Your task to perform on an android device: add a contact Image 0: 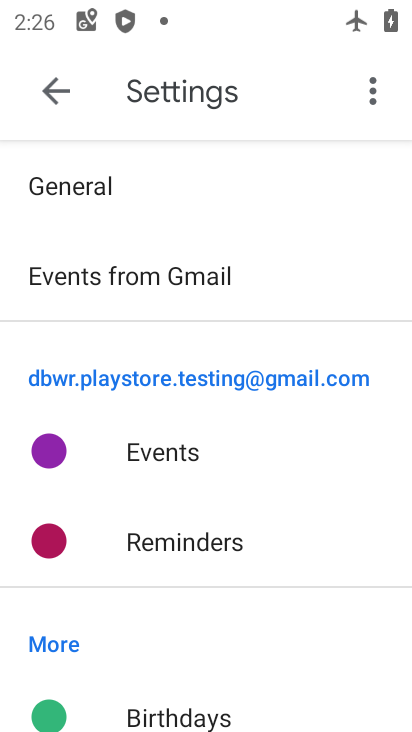
Step 0: press home button
Your task to perform on an android device: add a contact Image 1: 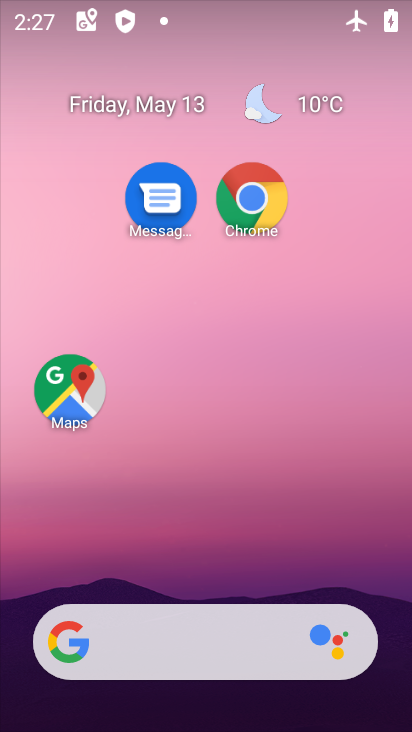
Step 1: drag from (232, 575) to (197, 31)
Your task to perform on an android device: add a contact Image 2: 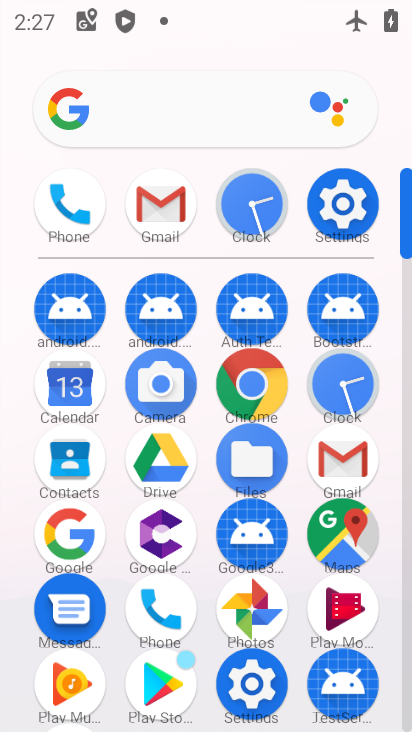
Step 2: click (150, 610)
Your task to perform on an android device: add a contact Image 3: 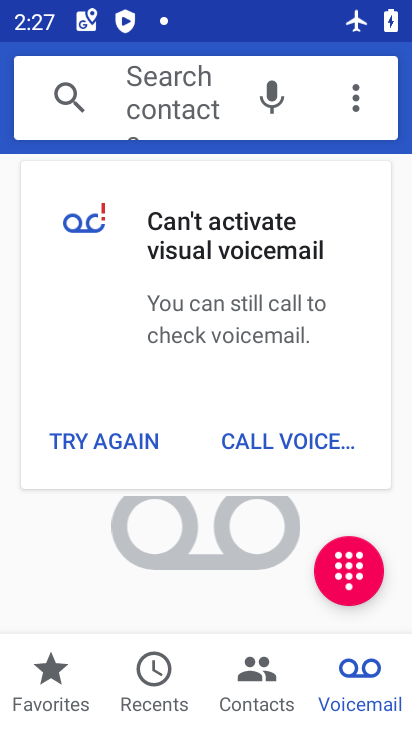
Step 3: click (269, 713)
Your task to perform on an android device: add a contact Image 4: 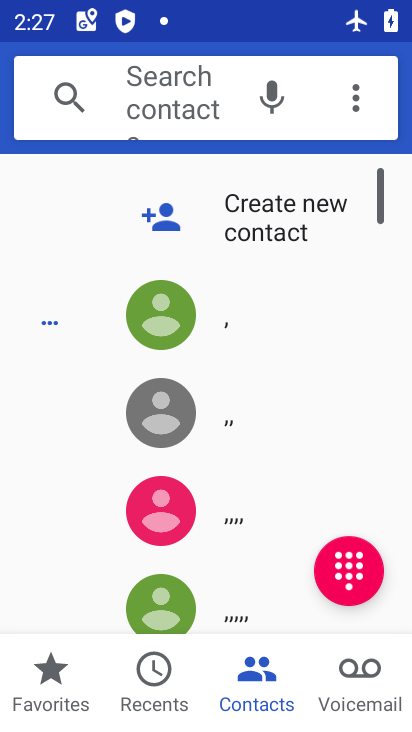
Step 4: click (206, 218)
Your task to perform on an android device: add a contact Image 5: 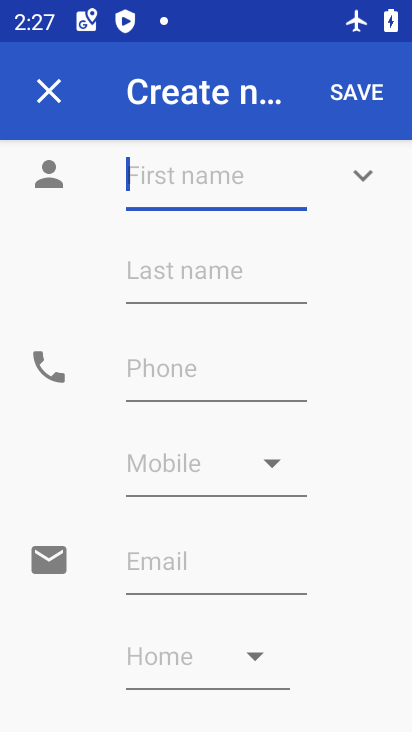
Step 5: type "hh"
Your task to perform on an android device: add a contact Image 6: 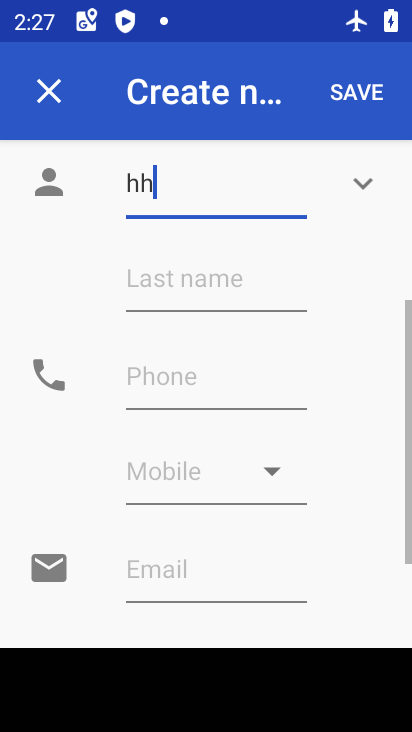
Step 6: type ""
Your task to perform on an android device: add a contact Image 7: 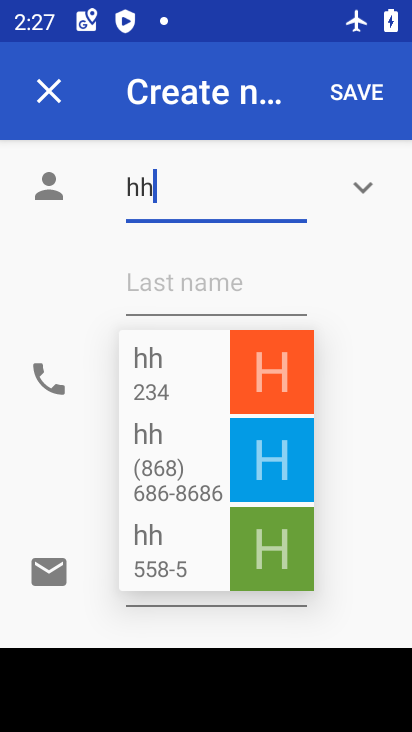
Step 7: click (351, 76)
Your task to perform on an android device: add a contact Image 8: 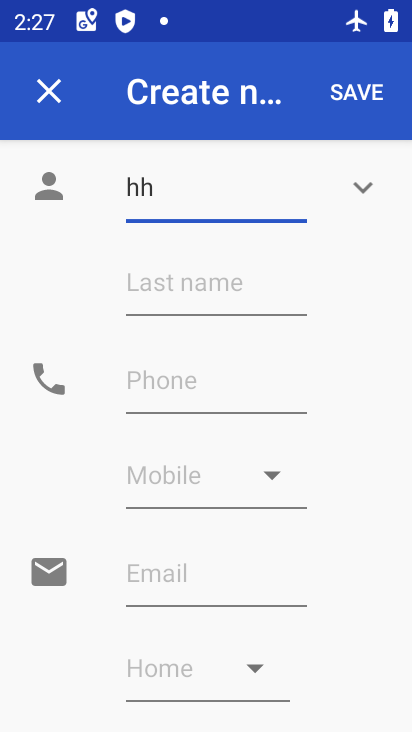
Step 8: task complete